Your task to perform on an android device: check android version Image 0: 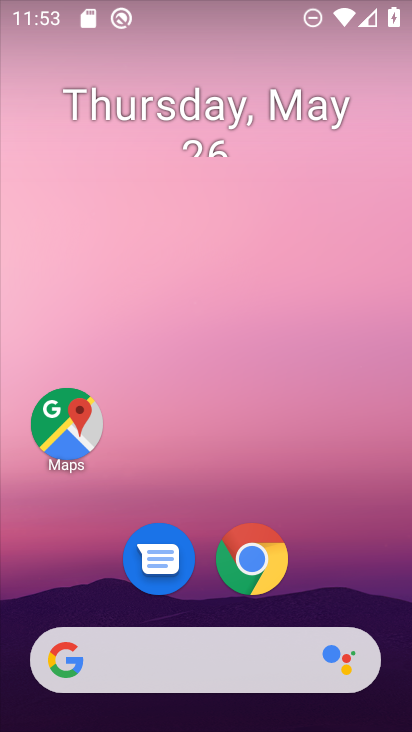
Step 0: drag from (306, 597) to (297, 162)
Your task to perform on an android device: check android version Image 1: 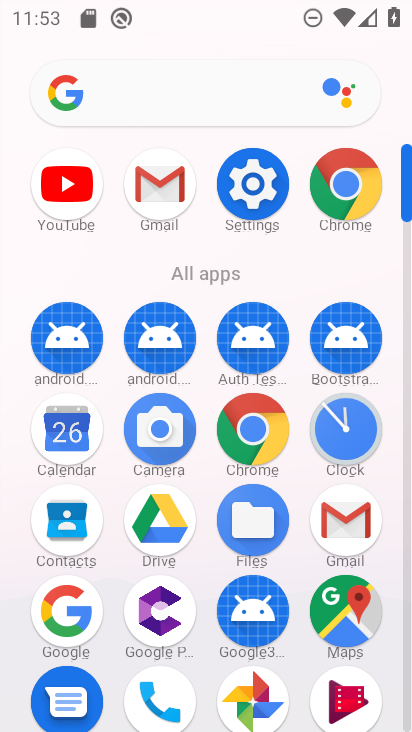
Step 1: click (255, 203)
Your task to perform on an android device: check android version Image 2: 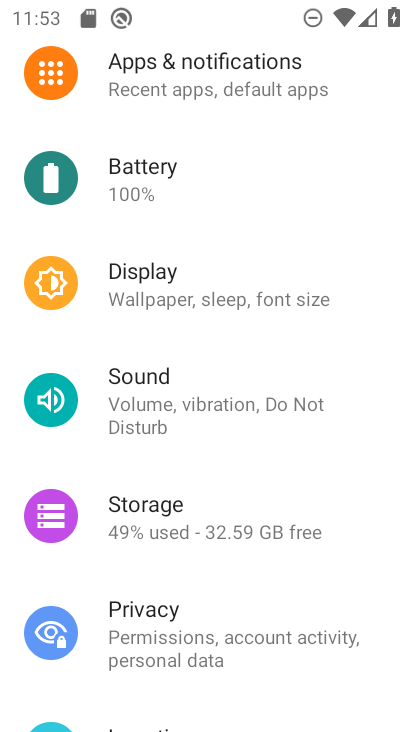
Step 2: drag from (262, 654) to (251, 254)
Your task to perform on an android device: check android version Image 3: 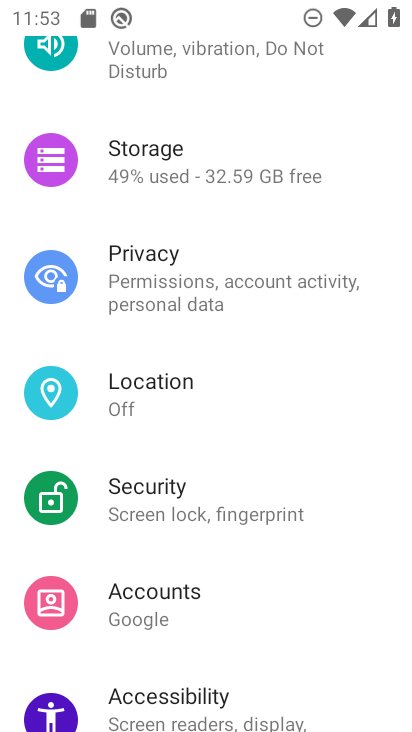
Step 3: drag from (217, 614) to (200, 198)
Your task to perform on an android device: check android version Image 4: 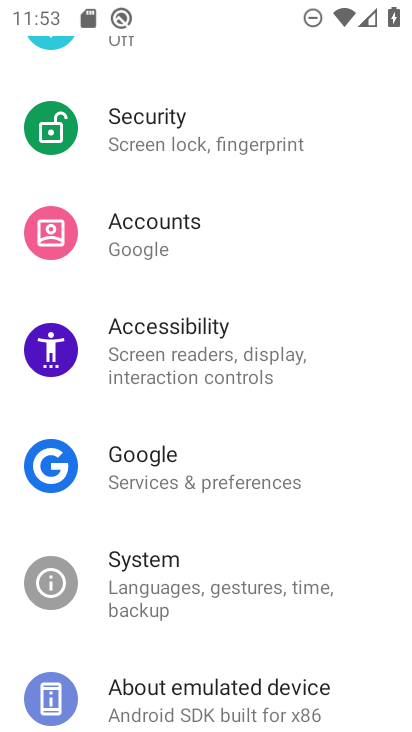
Step 4: drag from (163, 665) to (174, 225)
Your task to perform on an android device: check android version Image 5: 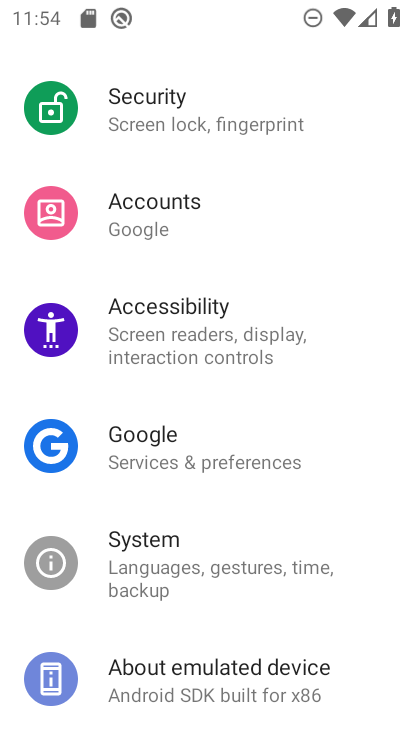
Step 5: click (193, 677)
Your task to perform on an android device: check android version Image 6: 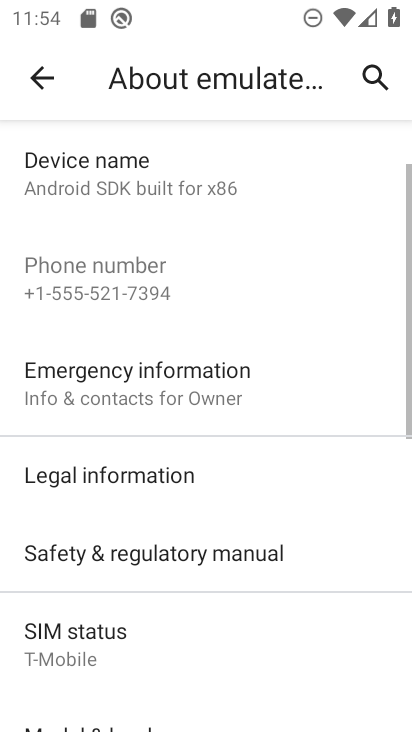
Step 6: drag from (254, 647) to (217, 244)
Your task to perform on an android device: check android version Image 7: 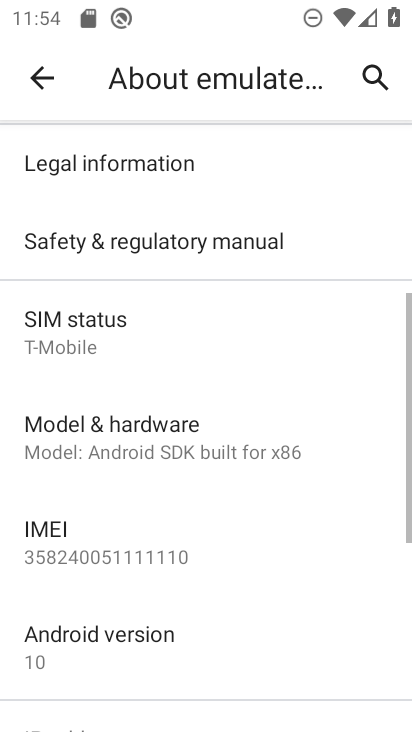
Step 7: click (172, 635)
Your task to perform on an android device: check android version Image 8: 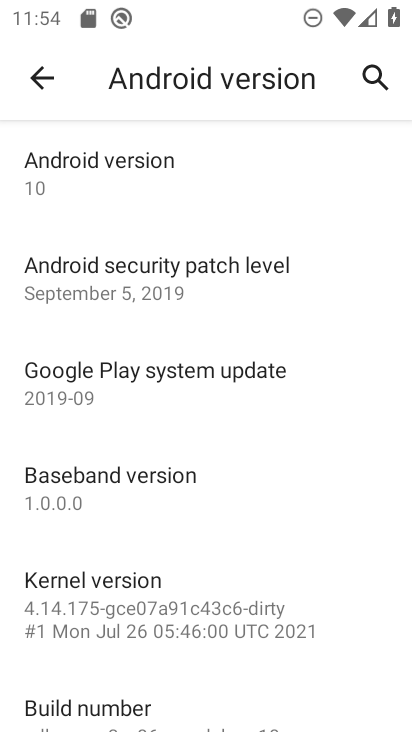
Step 8: click (203, 145)
Your task to perform on an android device: check android version Image 9: 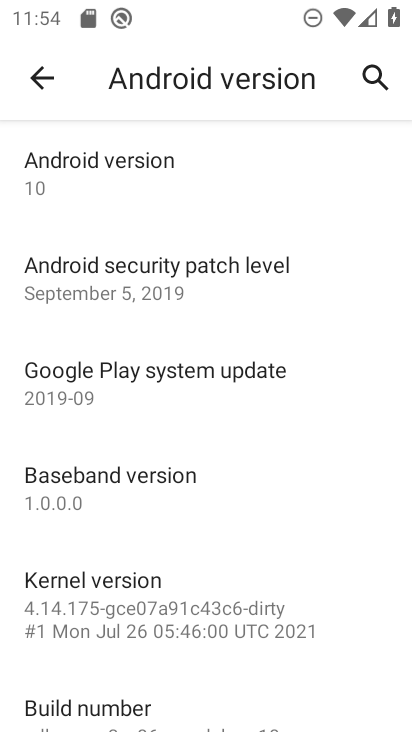
Step 9: task complete